Your task to perform on an android device: Go to network settings Image 0: 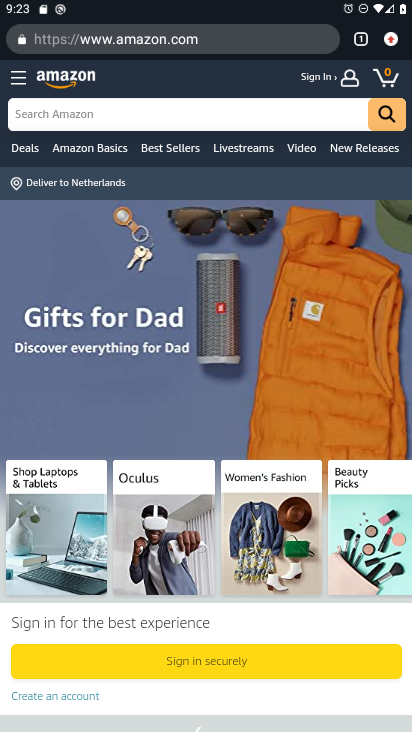
Step 0: press home button
Your task to perform on an android device: Go to network settings Image 1: 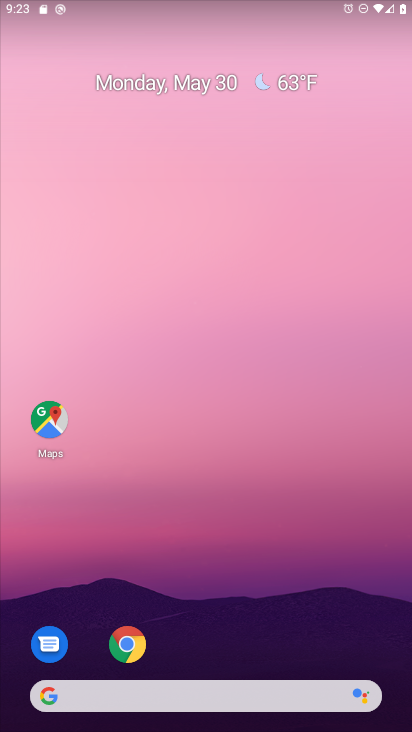
Step 1: drag from (213, 637) to (236, 73)
Your task to perform on an android device: Go to network settings Image 2: 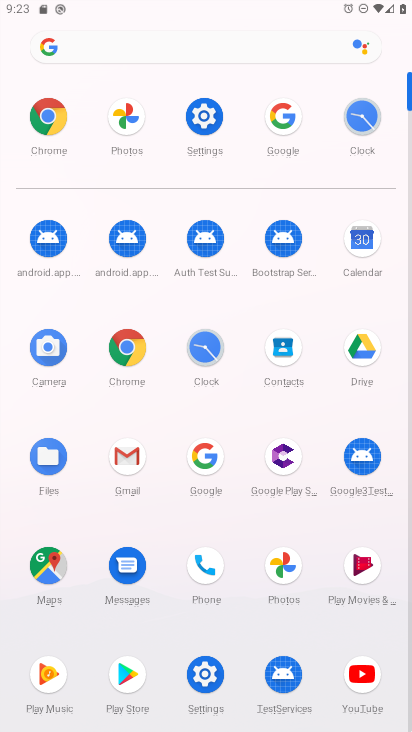
Step 2: click (204, 113)
Your task to perform on an android device: Go to network settings Image 3: 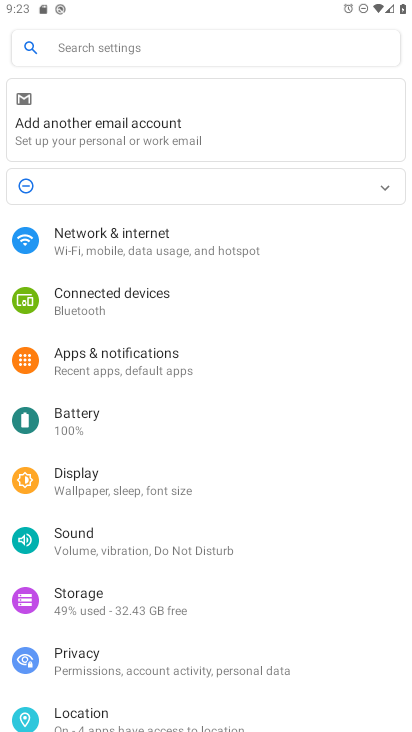
Step 3: click (145, 250)
Your task to perform on an android device: Go to network settings Image 4: 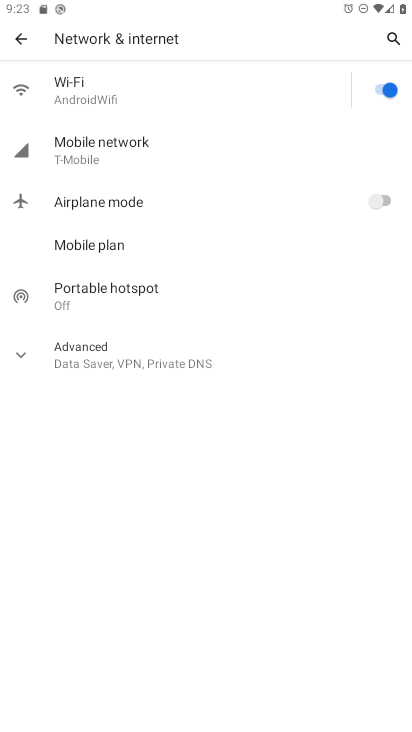
Step 4: click (112, 156)
Your task to perform on an android device: Go to network settings Image 5: 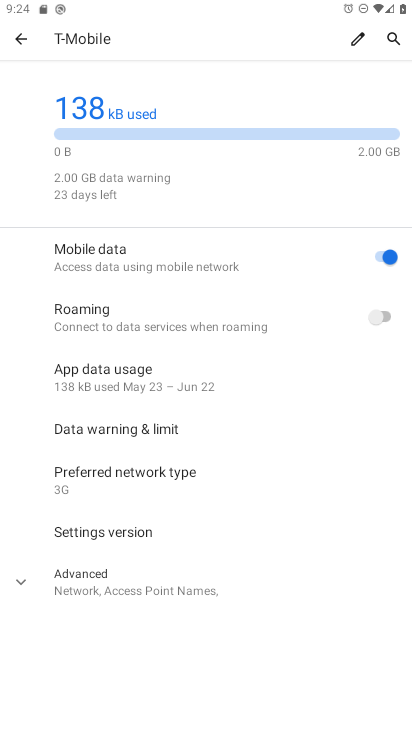
Step 5: task complete